Your task to perform on an android device: clear all cookies in the chrome app Image 0: 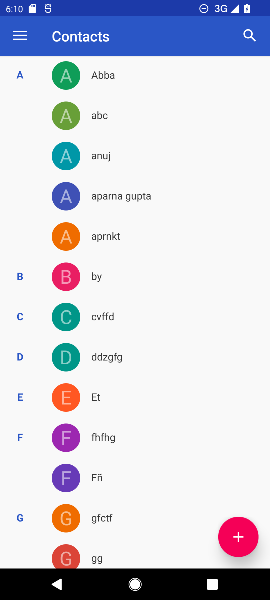
Step 0: press home button
Your task to perform on an android device: clear all cookies in the chrome app Image 1: 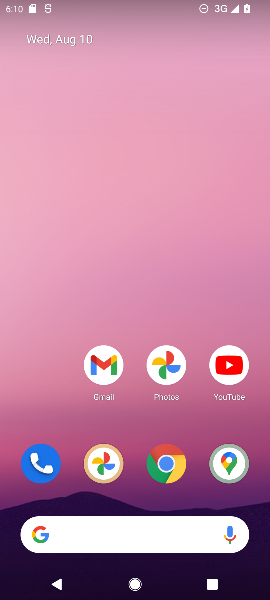
Step 1: click (167, 466)
Your task to perform on an android device: clear all cookies in the chrome app Image 2: 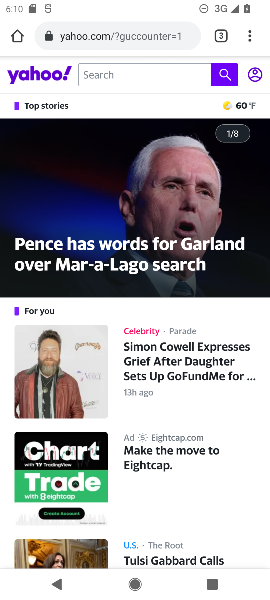
Step 2: click (252, 32)
Your task to perform on an android device: clear all cookies in the chrome app Image 3: 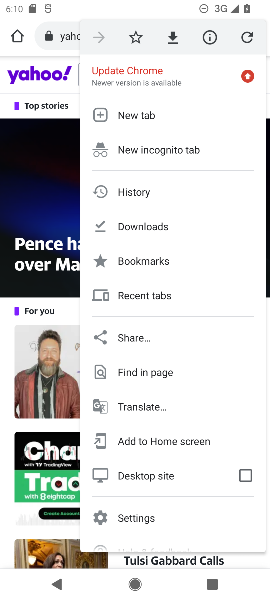
Step 3: click (124, 512)
Your task to perform on an android device: clear all cookies in the chrome app Image 4: 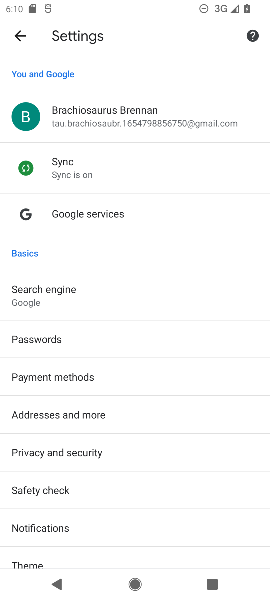
Step 4: drag from (132, 476) to (142, 149)
Your task to perform on an android device: clear all cookies in the chrome app Image 5: 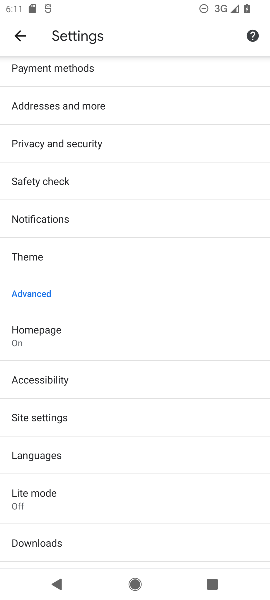
Step 5: click (66, 140)
Your task to perform on an android device: clear all cookies in the chrome app Image 6: 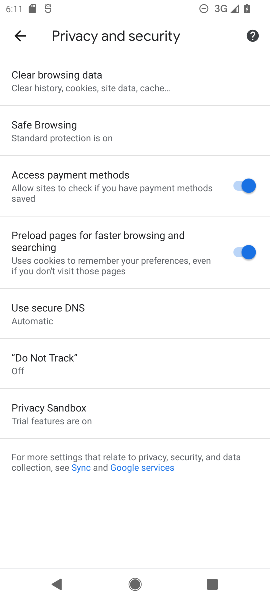
Step 6: click (63, 404)
Your task to perform on an android device: clear all cookies in the chrome app Image 7: 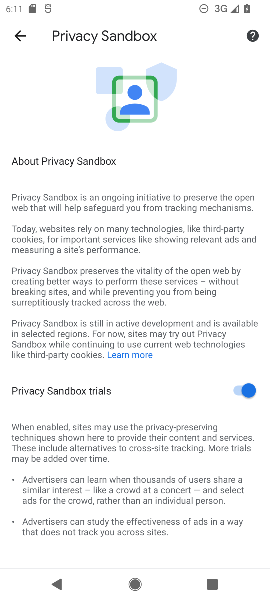
Step 7: click (19, 36)
Your task to perform on an android device: clear all cookies in the chrome app Image 8: 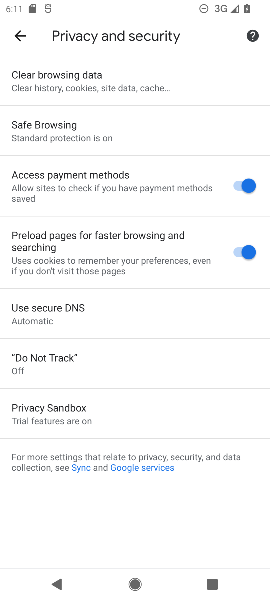
Step 8: click (56, 79)
Your task to perform on an android device: clear all cookies in the chrome app Image 9: 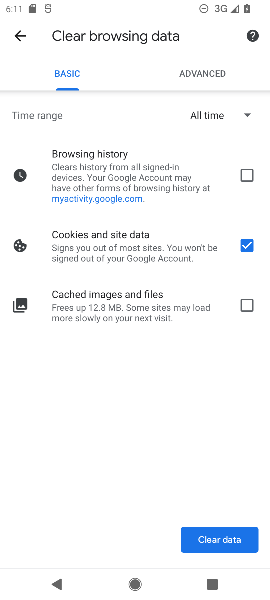
Step 9: click (215, 538)
Your task to perform on an android device: clear all cookies in the chrome app Image 10: 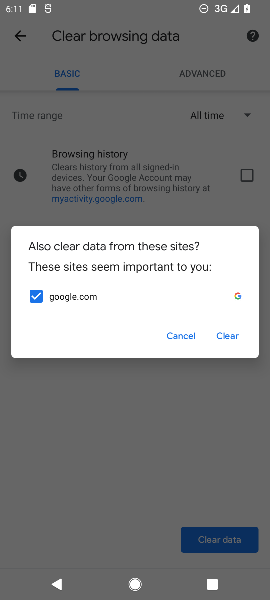
Step 10: click (225, 333)
Your task to perform on an android device: clear all cookies in the chrome app Image 11: 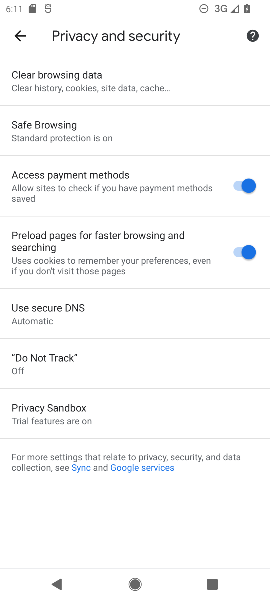
Step 11: task complete